Your task to perform on an android device: Search for vegetarian restaurants on Maps Image 0: 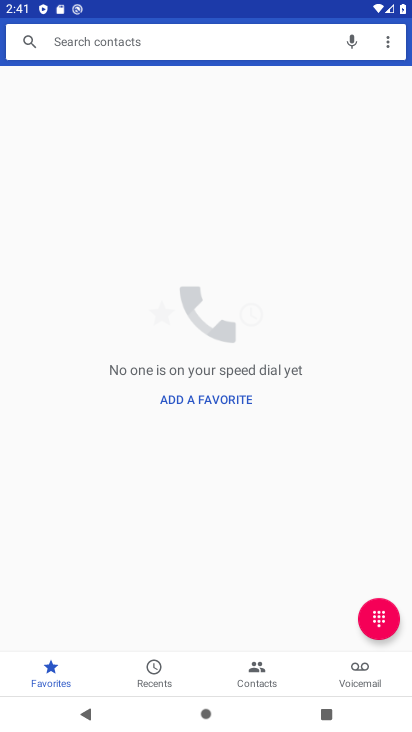
Step 0: press home button
Your task to perform on an android device: Search for vegetarian restaurants on Maps Image 1: 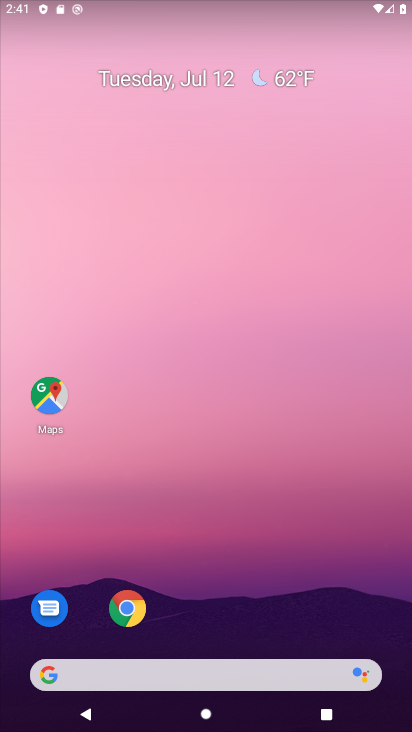
Step 1: click (48, 399)
Your task to perform on an android device: Search for vegetarian restaurants on Maps Image 2: 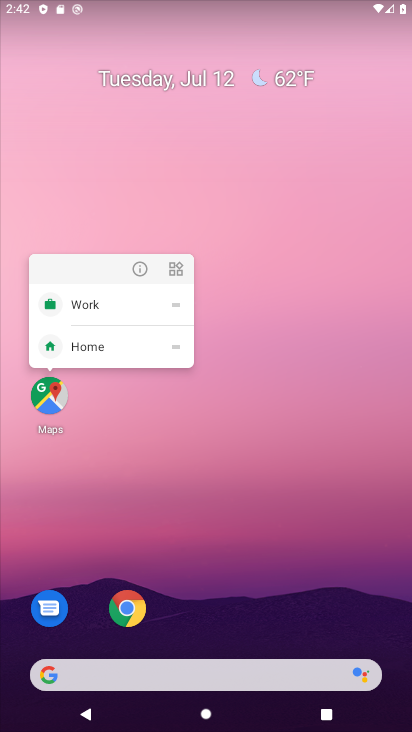
Step 2: click (52, 403)
Your task to perform on an android device: Search for vegetarian restaurants on Maps Image 3: 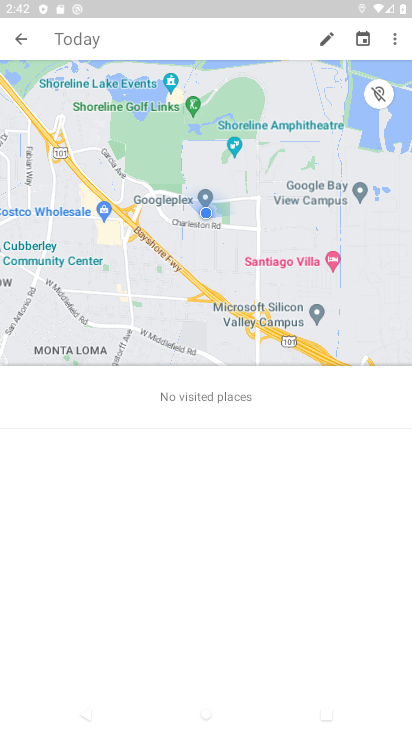
Step 3: click (14, 31)
Your task to perform on an android device: Search for vegetarian restaurants on Maps Image 4: 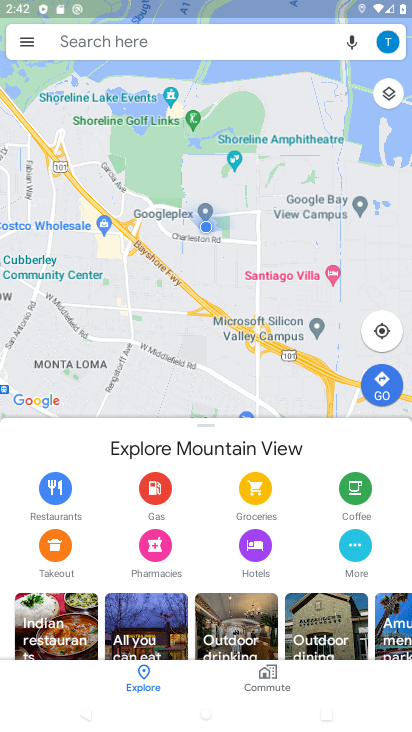
Step 4: click (164, 42)
Your task to perform on an android device: Search for vegetarian restaurants on Maps Image 5: 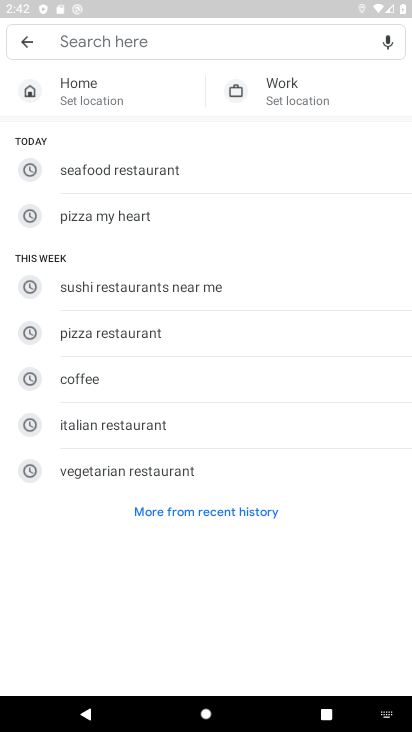
Step 5: click (138, 466)
Your task to perform on an android device: Search for vegetarian restaurants on Maps Image 6: 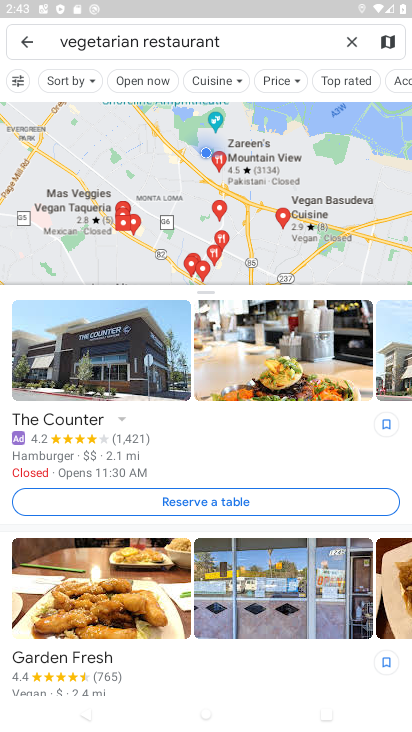
Step 6: task complete